Your task to perform on an android device: Go to Google maps Image 0: 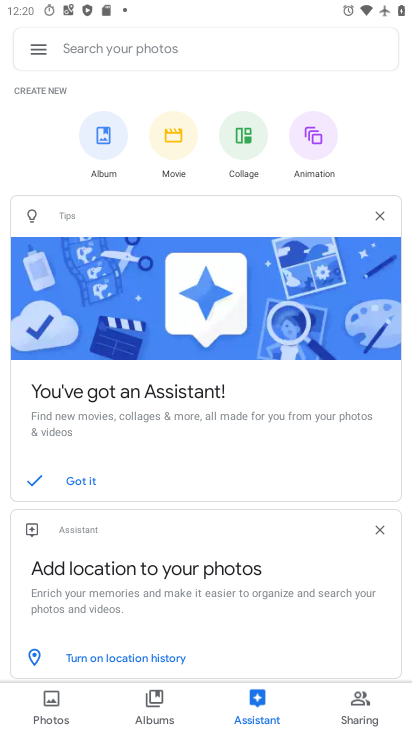
Step 0: press home button
Your task to perform on an android device: Go to Google maps Image 1: 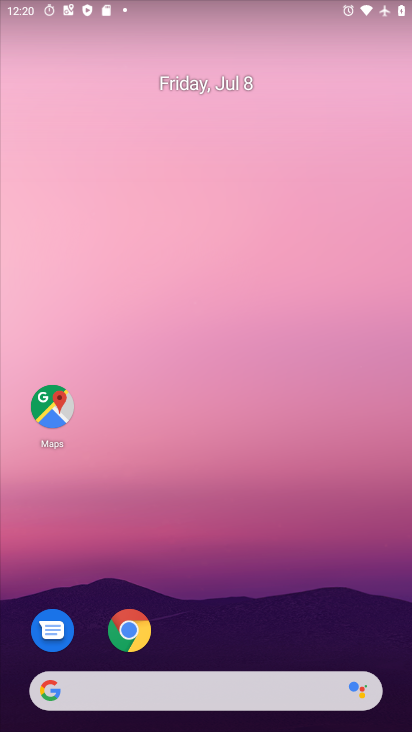
Step 1: click (61, 433)
Your task to perform on an android device: Go to Google maps Image 2: 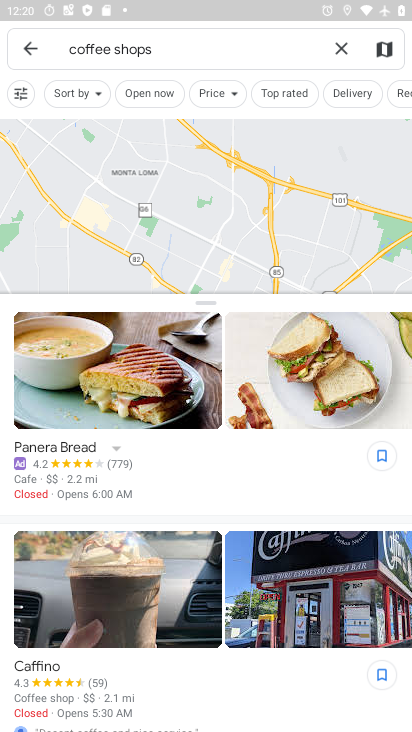
Step 2: click (30, 46)
Your task to perform on an android device: Go to Google maps Image 3: 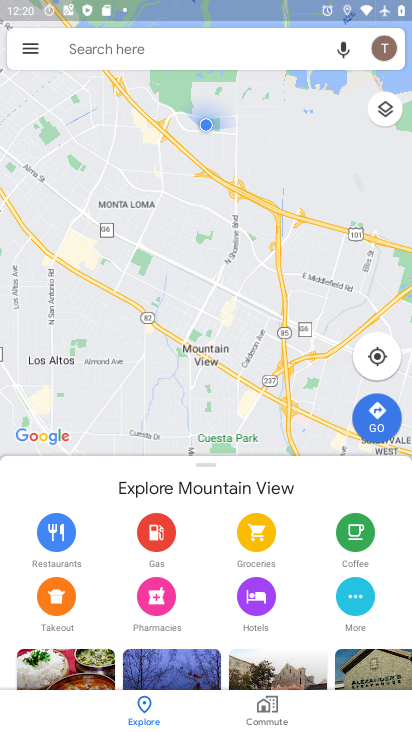
Step 3: task complete